Your task to perform on an android device: uninstall "Contacts" Image 0: 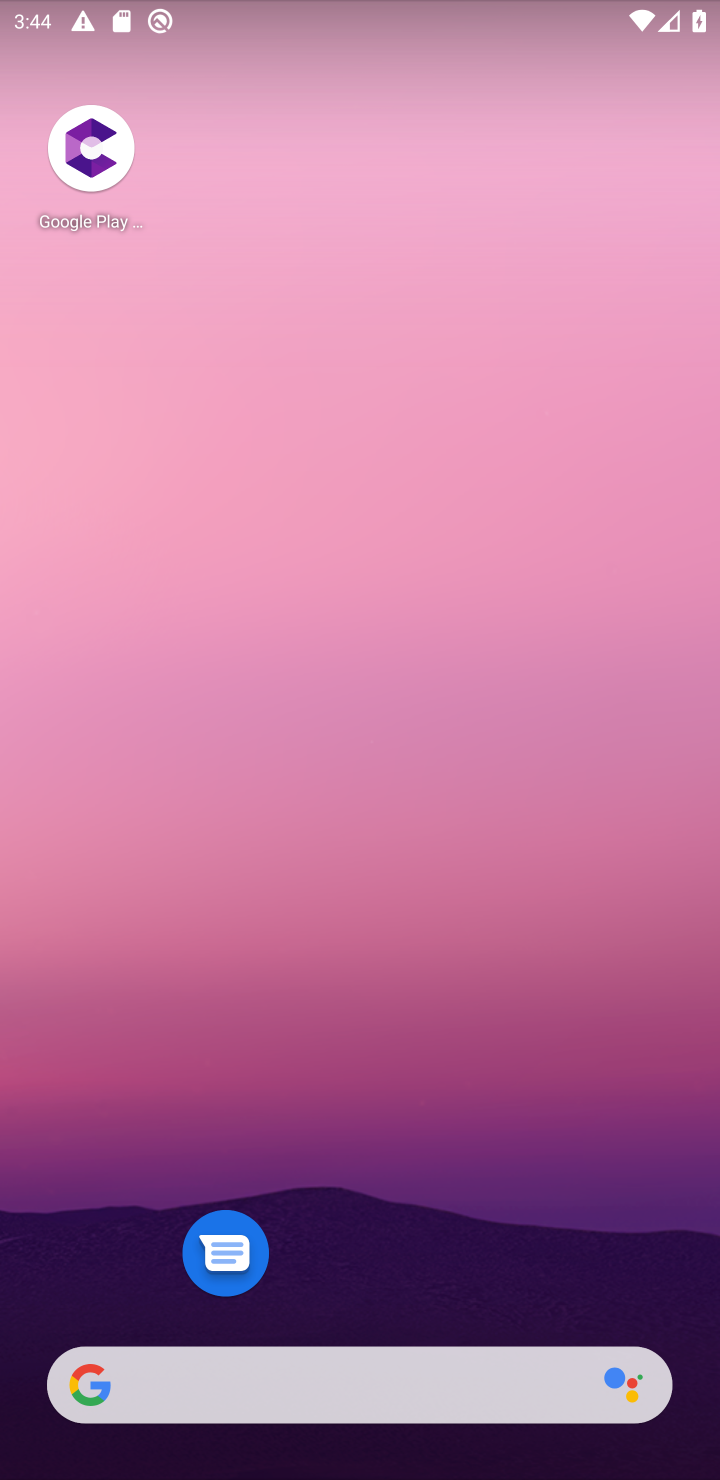
Step 0: drag from (482, 852) to (579, 417)
Your task to perform on an android device: uninstall "Contacts" Image 1: 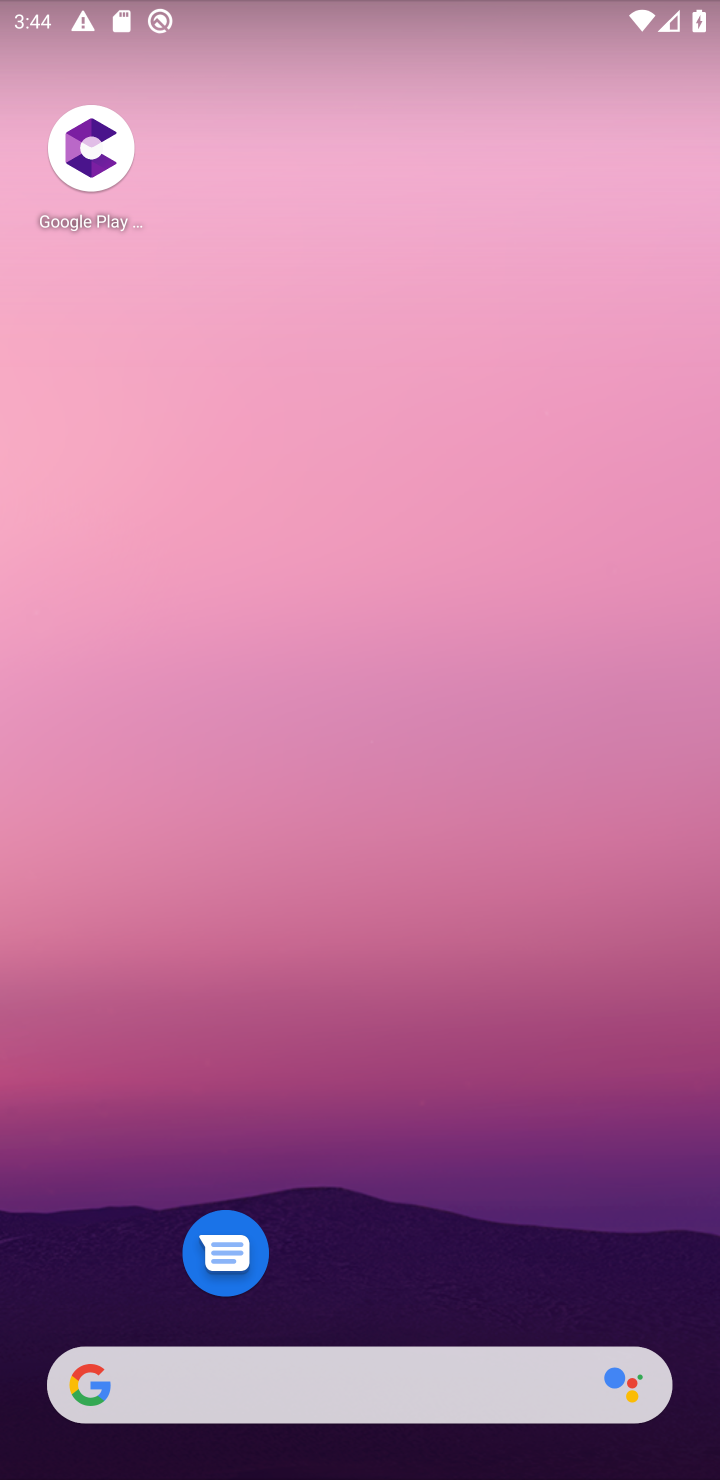
Step 1: drag from (360, 1156) to (367, 129)
Your task to perform on an android device: uninstall "Contacts" Image 2: 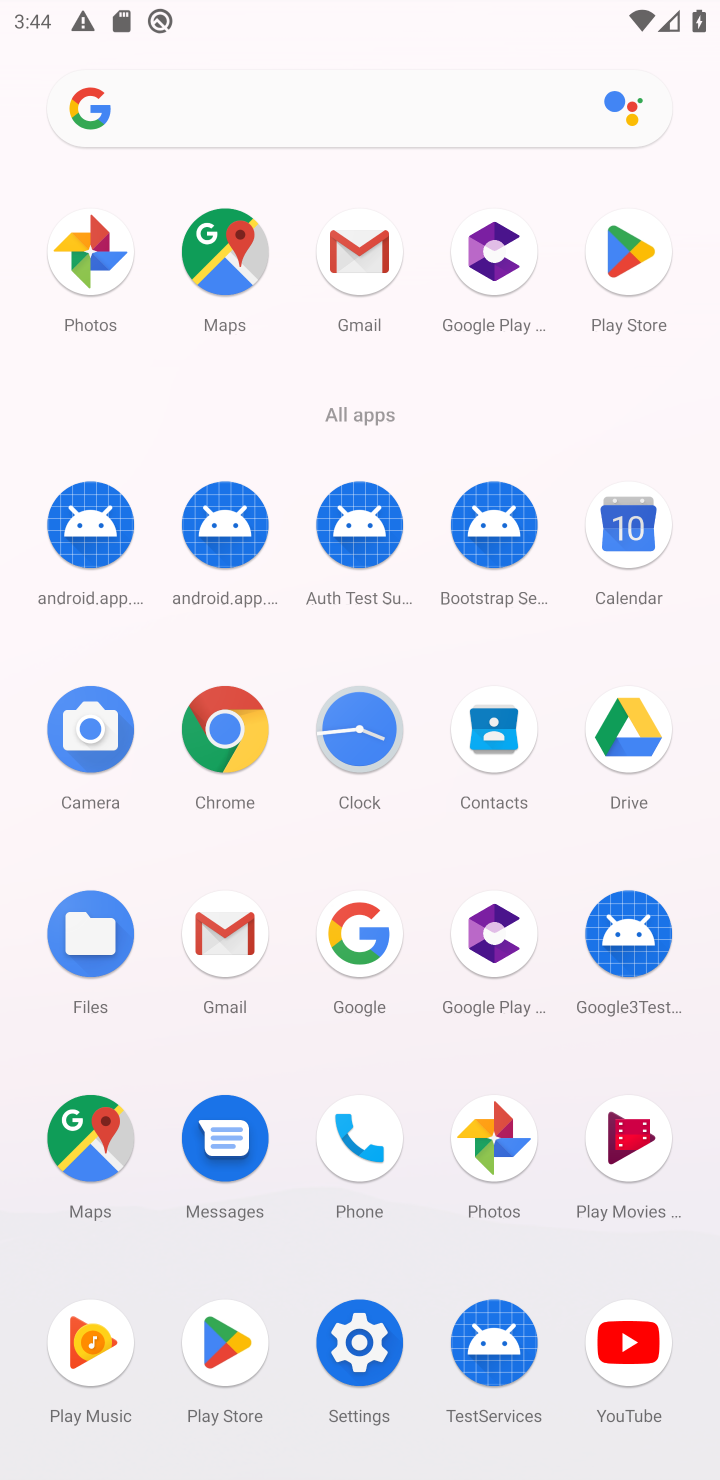
Step 2: click (619, 240)
Your task to perform on an android device: uninstall "Contacts" Image 3: 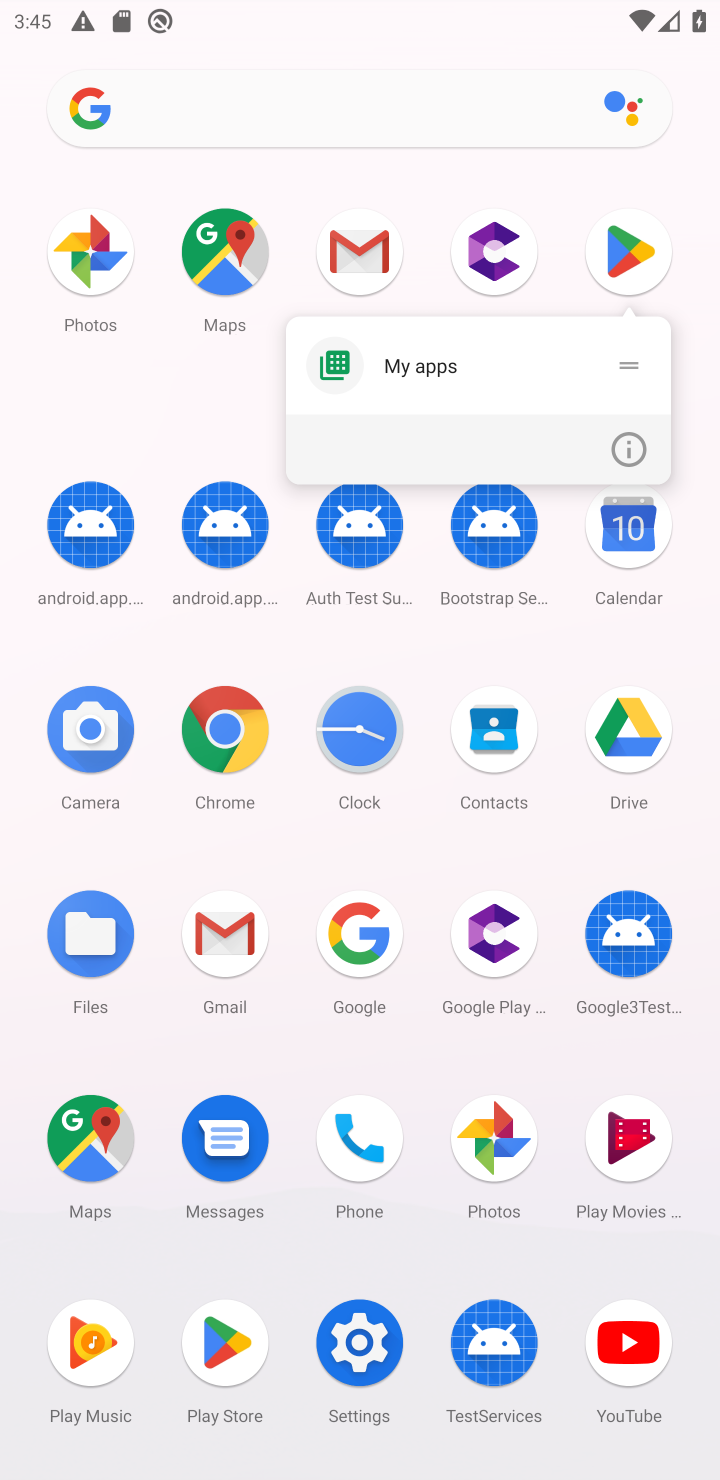
Step 3: click (629, 242)
Your task to perform on an android device: uninstall "Contacts" Image 4: 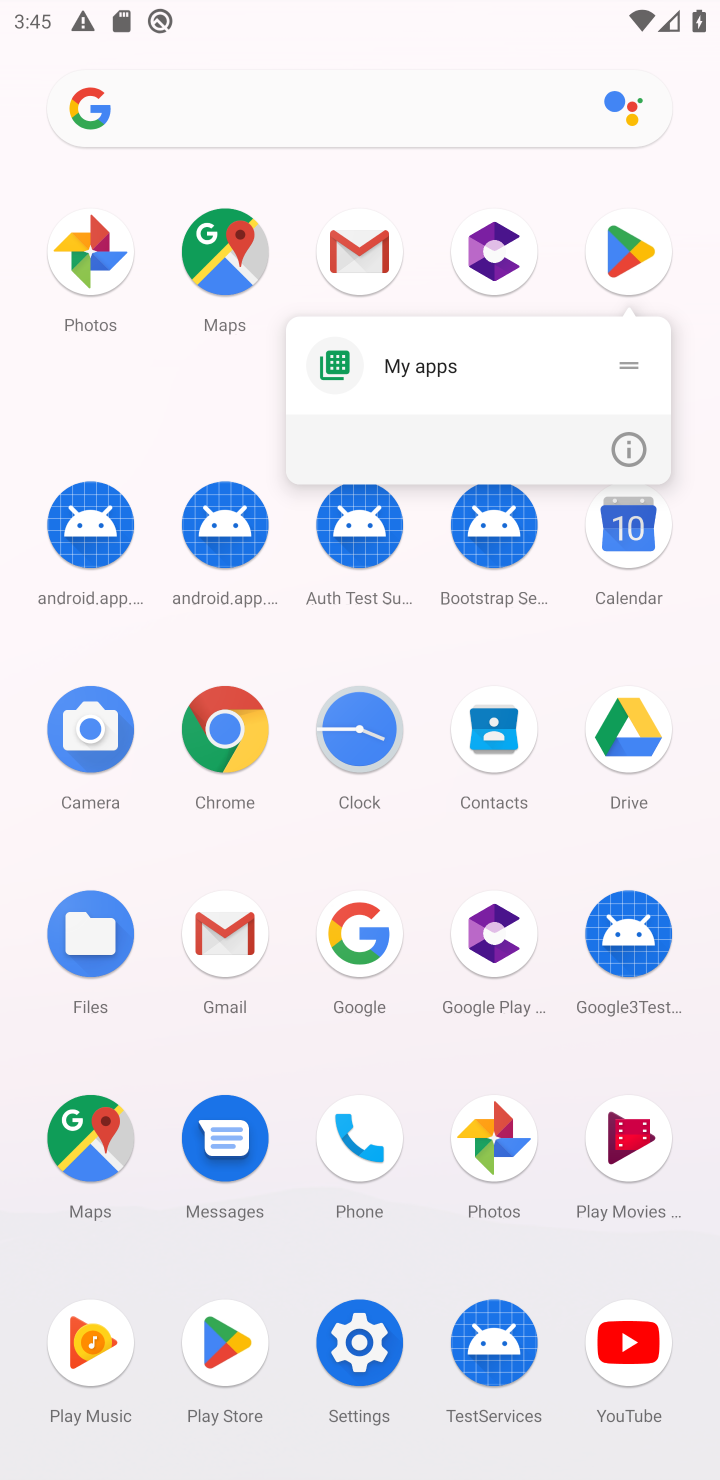
Step 4: click (629, 242)
Your task to perform on an android device: uninstall "Contacts" Image 5: 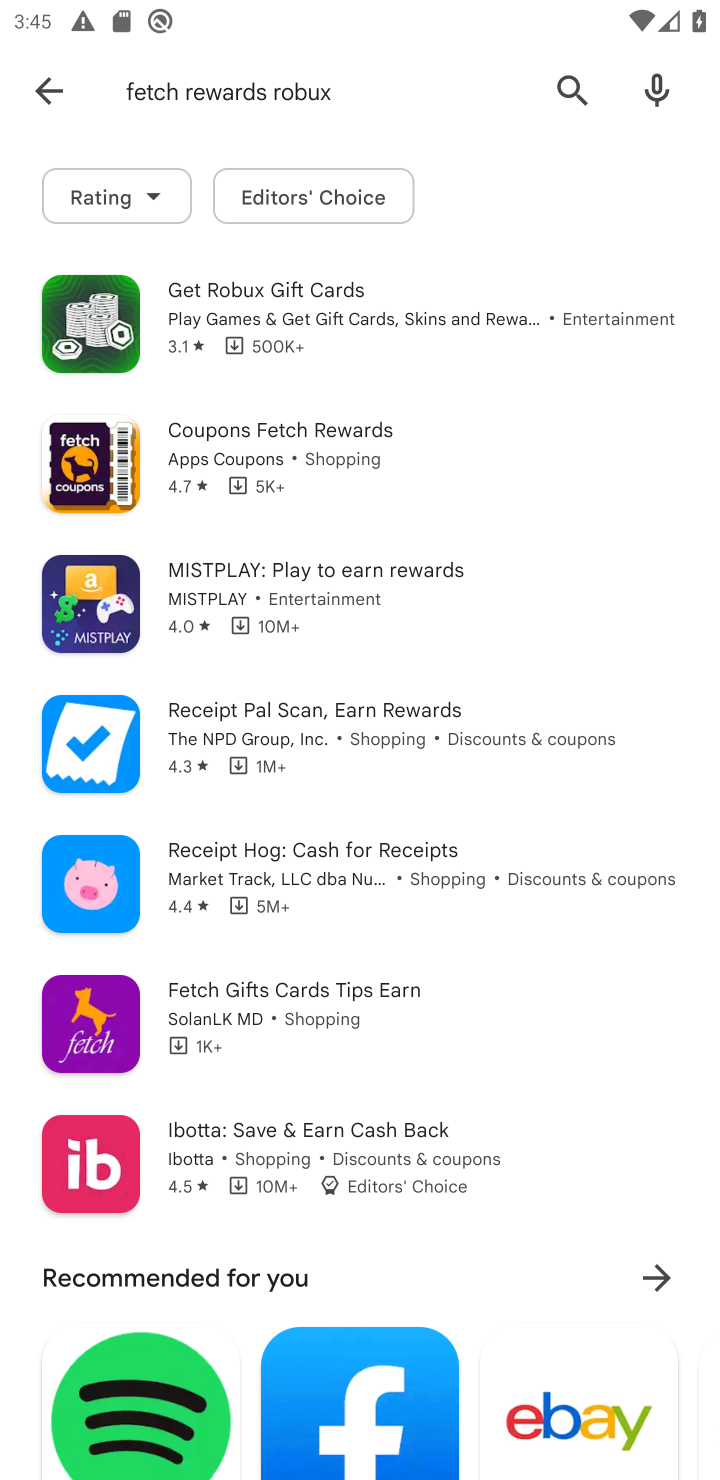
Step 5: click (27, 76)
Your task to perform on an android device: uninstall "Contacts" Image 6: 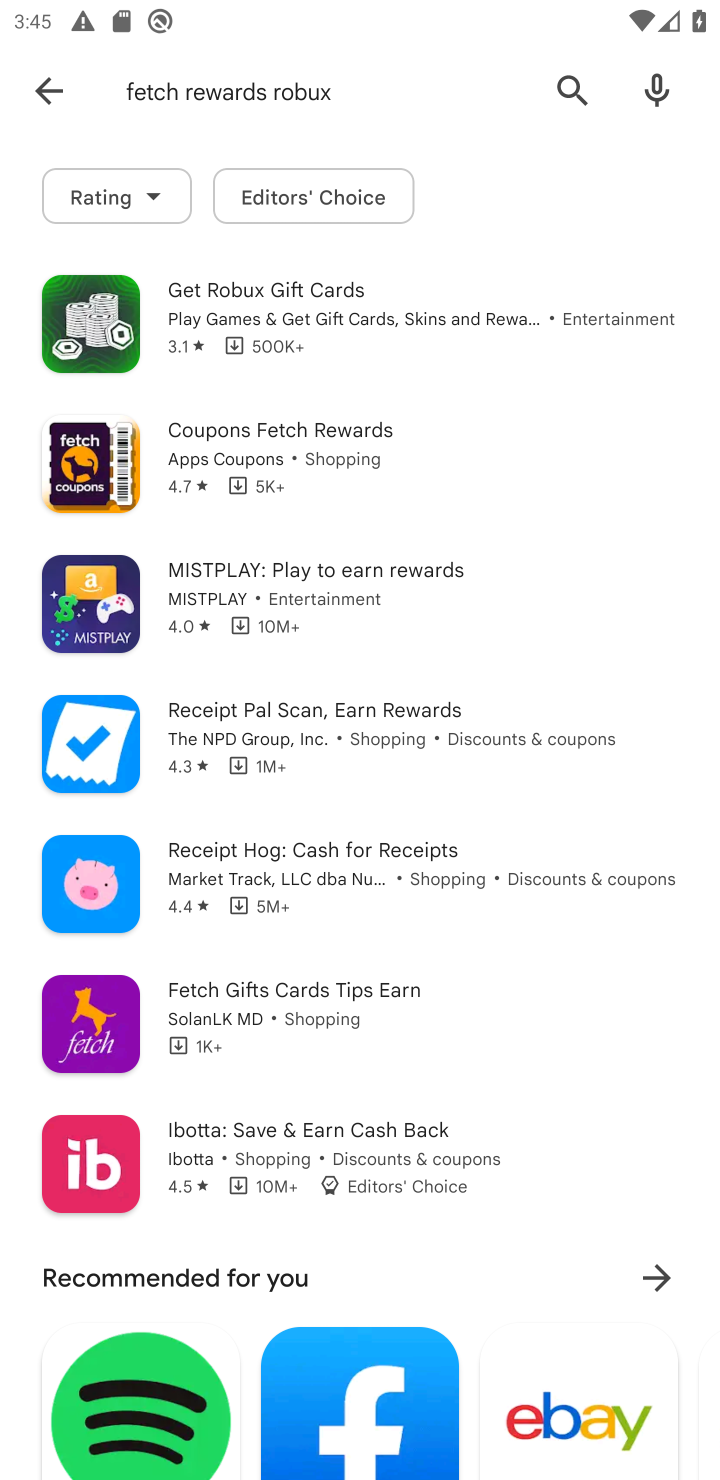
Step 6: click (50, 81)
Your task to perform on an android device: uninstall "Contacts" Image 7: 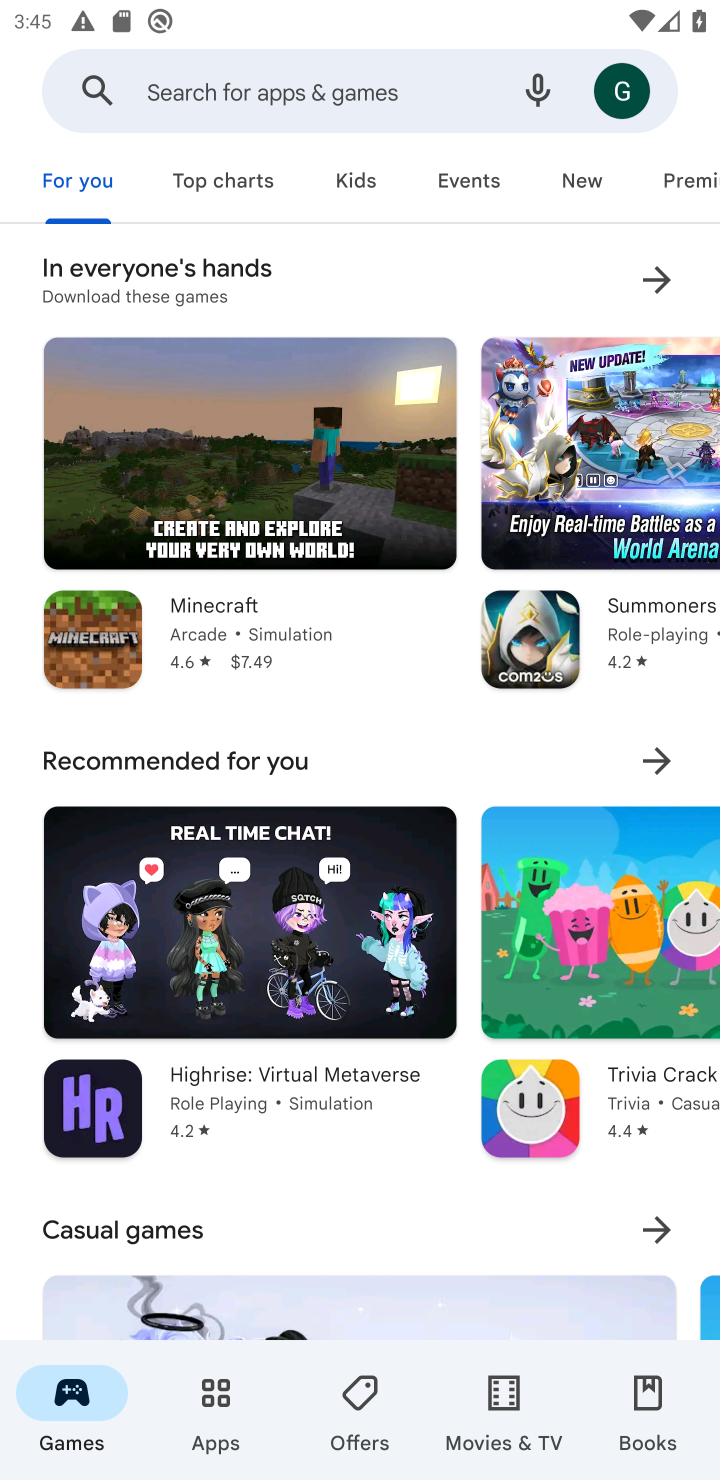
Step 7: click (315, 86)
Your task to perform on an android device: uninstall "Contacts" Image 8: 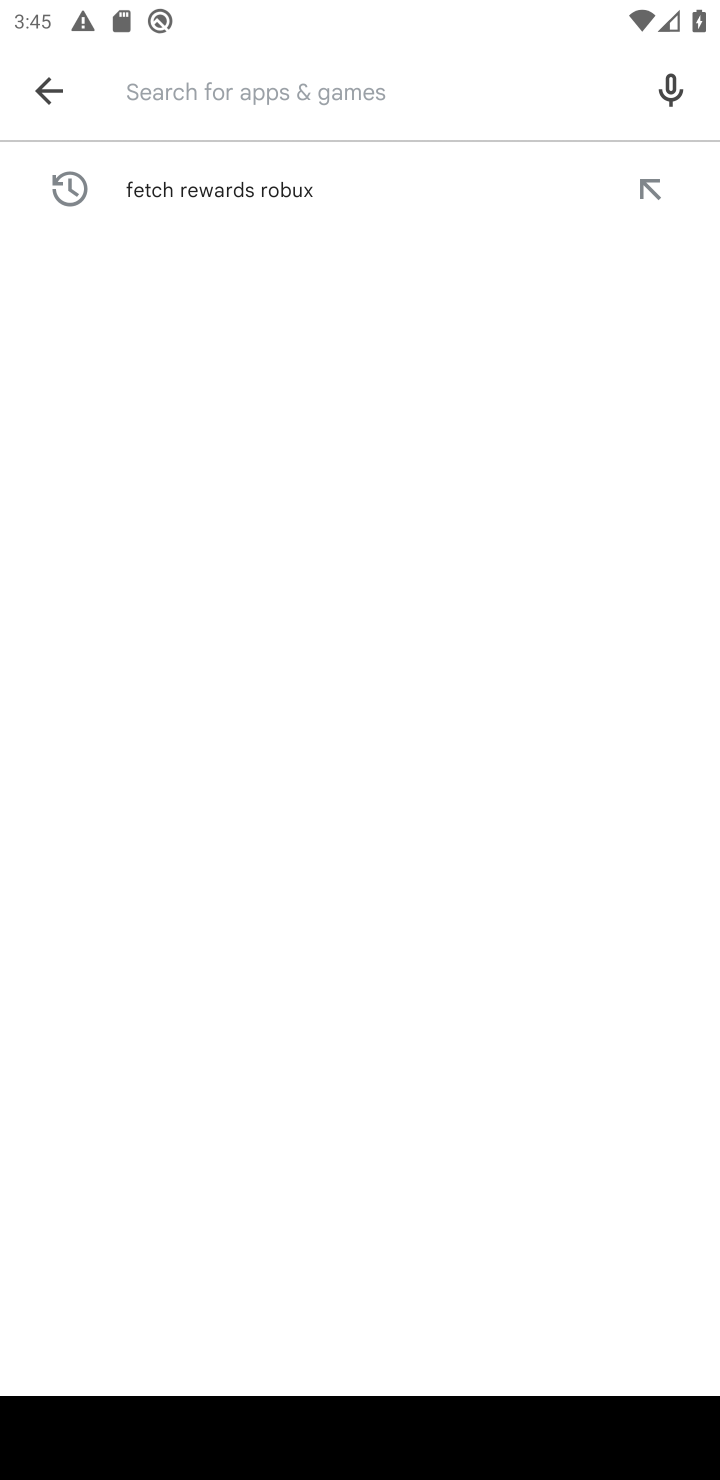
Step 8: type "contact "
Your task to perform on an android device: uninstall "Contacts" Image 9: 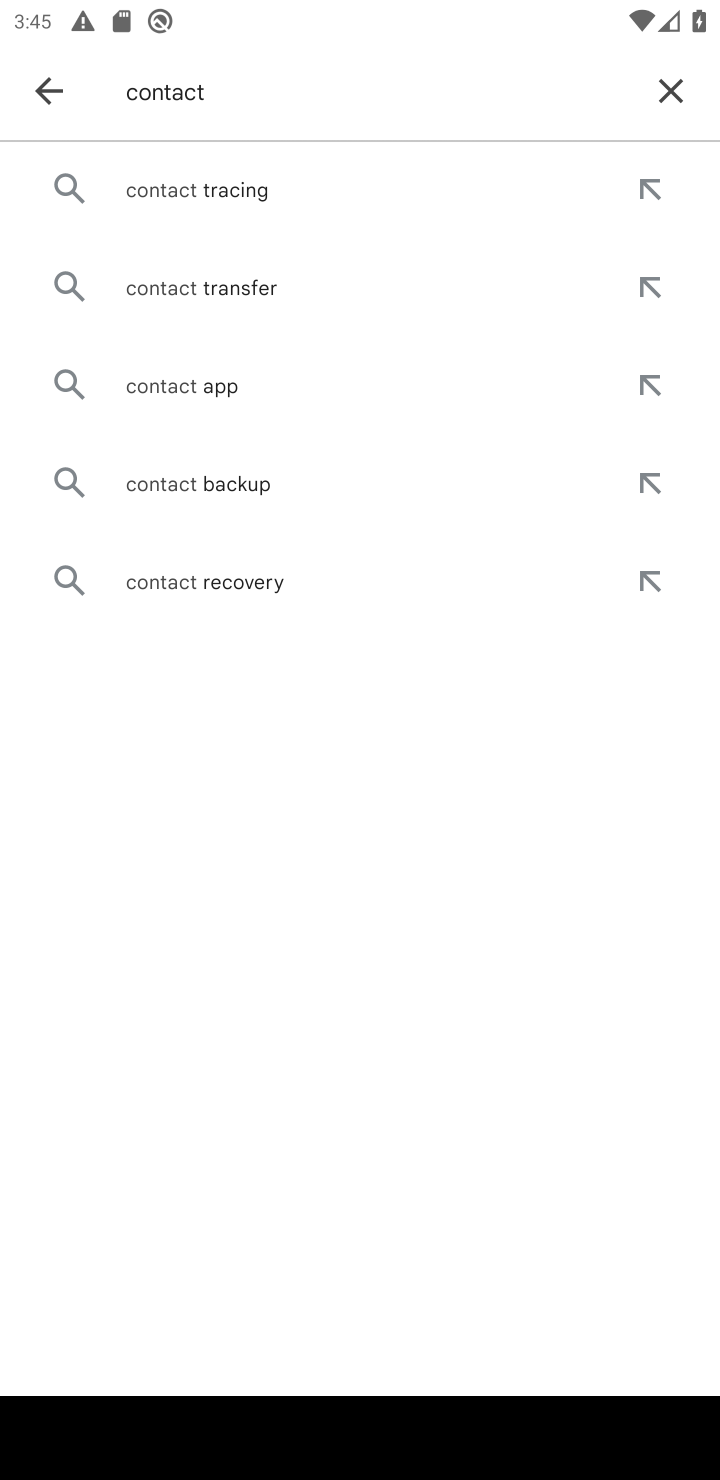
Step 9: click (235, 371)
Your task to perform on an android device: uninstall "Contacts" Image 10: 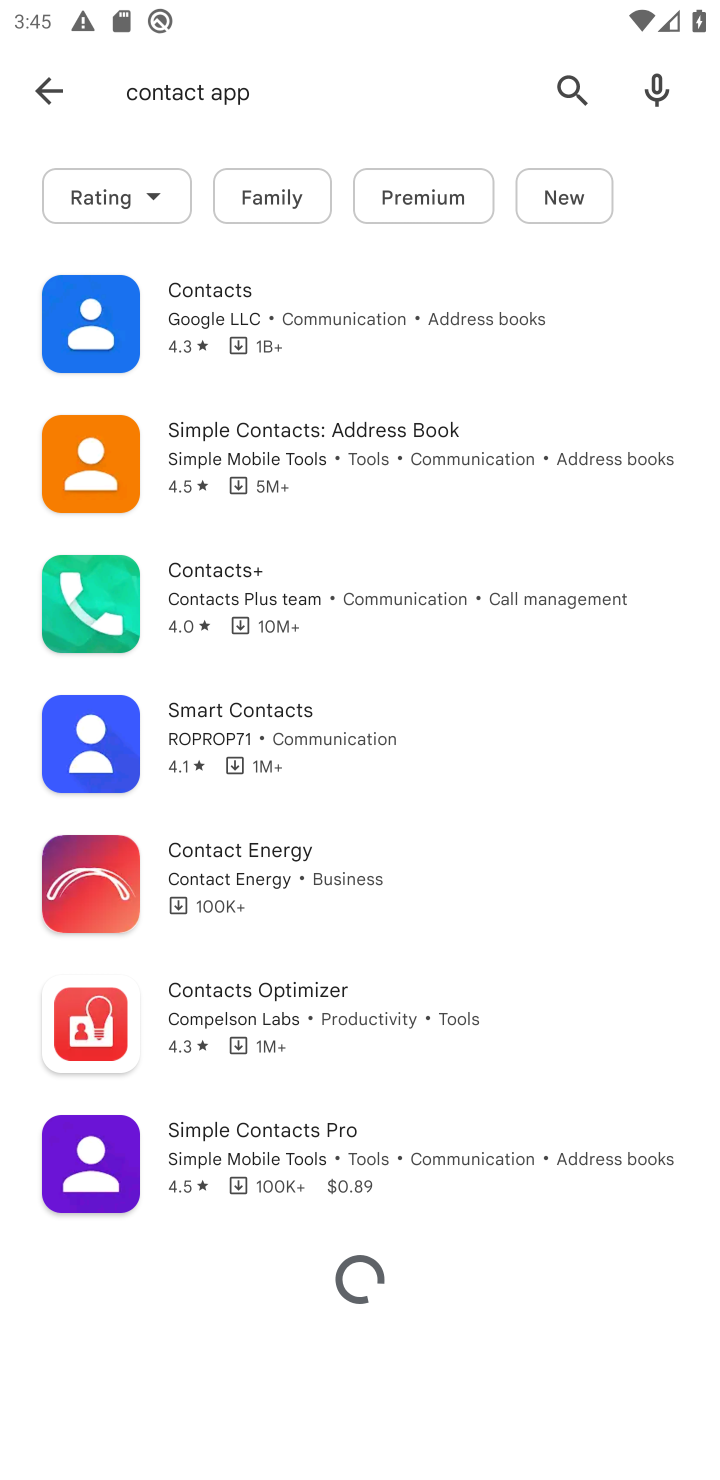
Step 10: click (224, 317)
Your task to perform on an android device: uninstall "Contacts" Image 11: 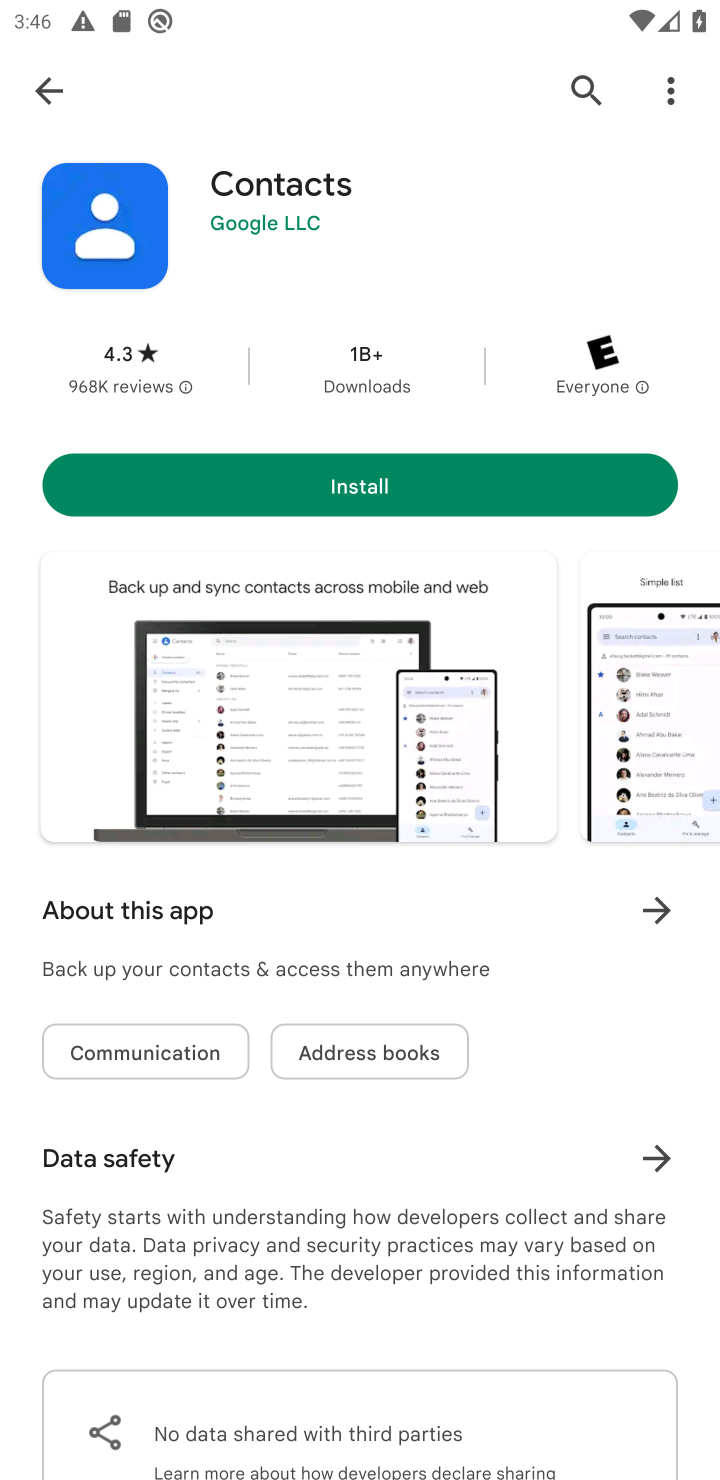
Step 11: task complete